Your task to perform on an android device: change notifications settings Image 0: 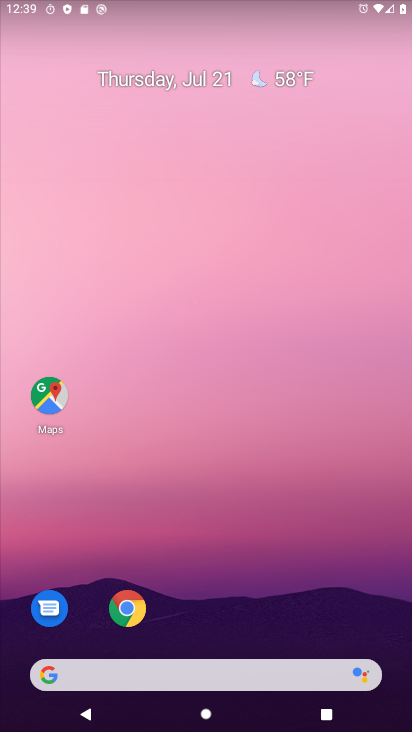
Step 0: press home button
Your task to perform on an android device: change notifications settings Image 1: 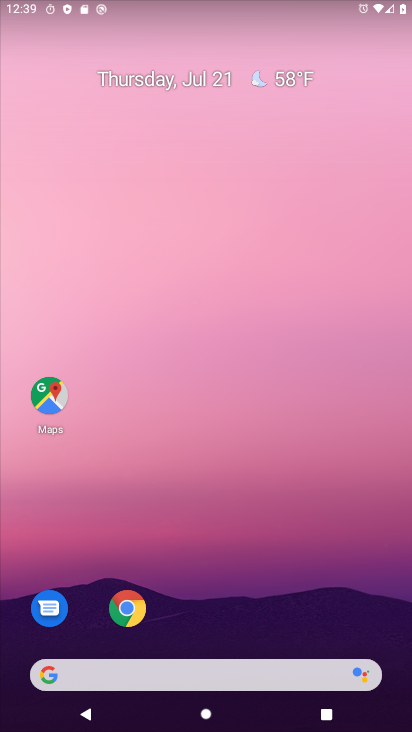
Step 1: drag from (195, 636) to (240, 15)
Your task to perform on an android device: change notifications settings Image 2: 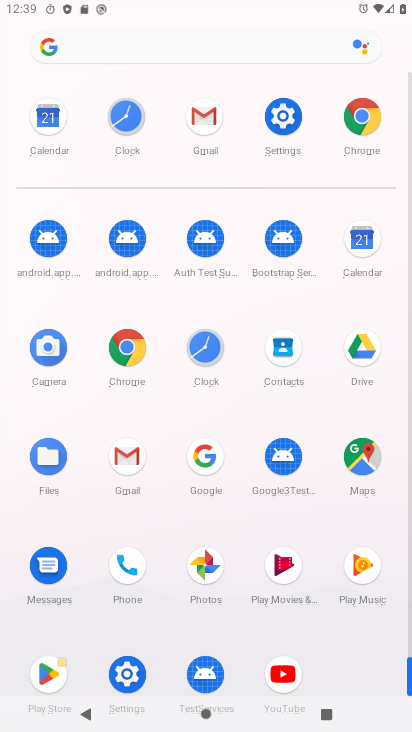
Step 2: click (283, 105)
Your task to perform on an android device: change notifications settings Image 3: 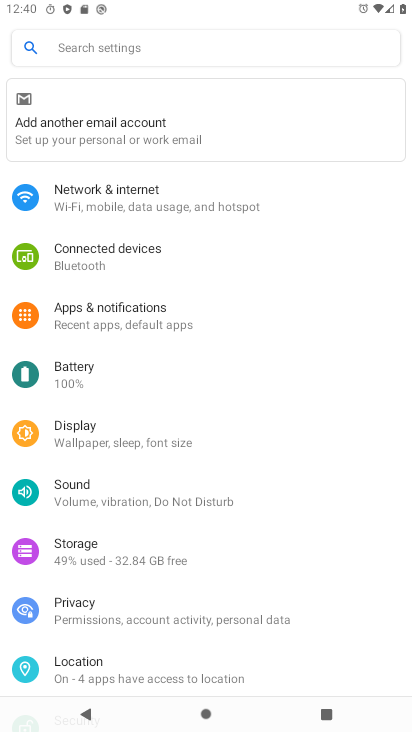
Step 3: click (173, 311)
Your task to perform on an android device: change notifications settings Image 4: 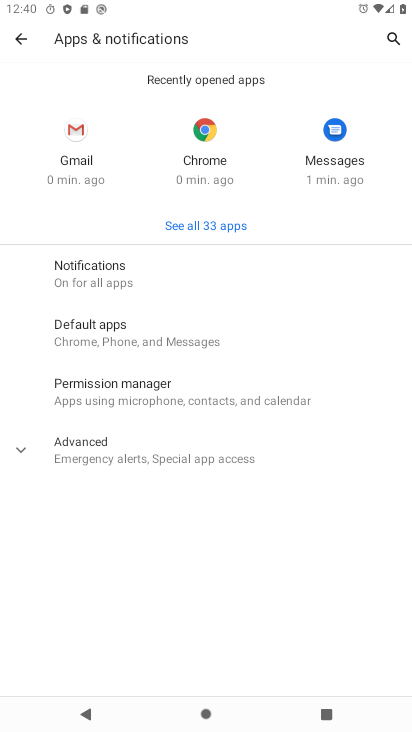
Step 4: click (135, 267)
Your task to perform on an android device: change notifications settings Image 5: 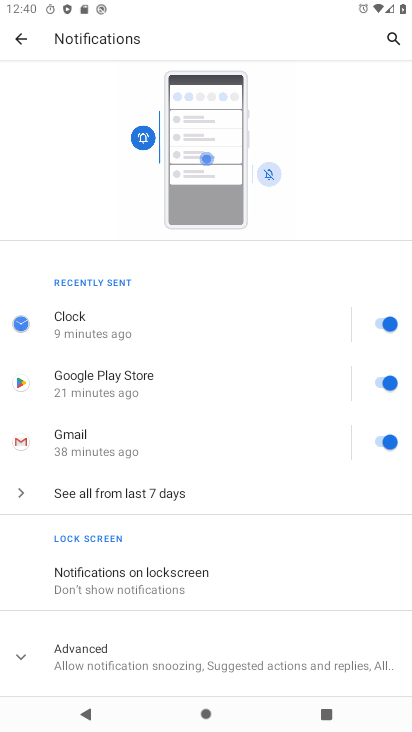
Step 5: click (21, 653)
Your task to perform on an android device: change notifications settings Image 6: 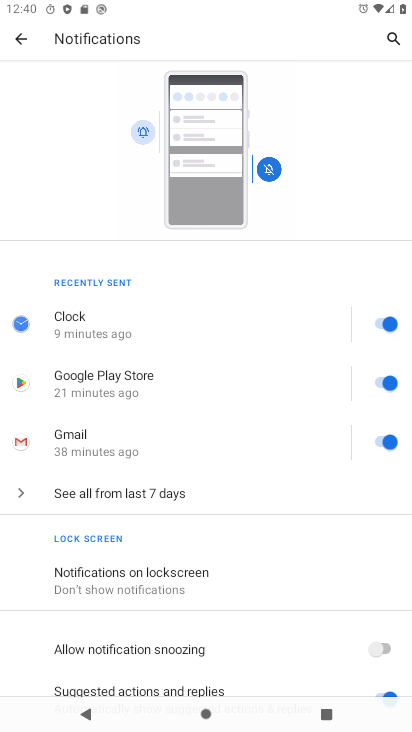
Step 6: task complete